Your task to perform on an android device: add a label to a message in the gmail app Image 0: 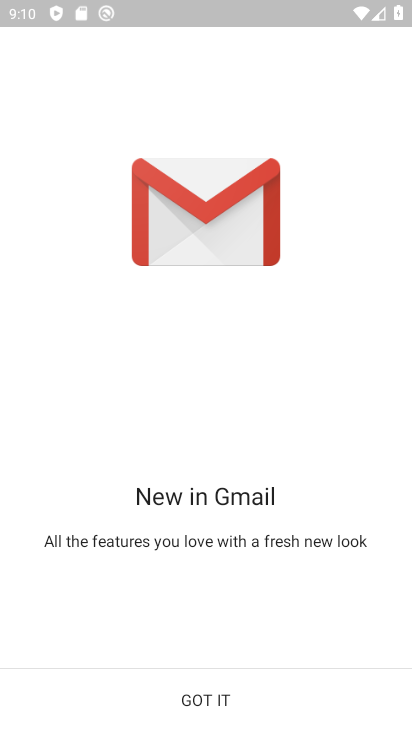
Step 0: press home button
Your task to perform on an android device: add a label to a message in the gmail app Image 1: 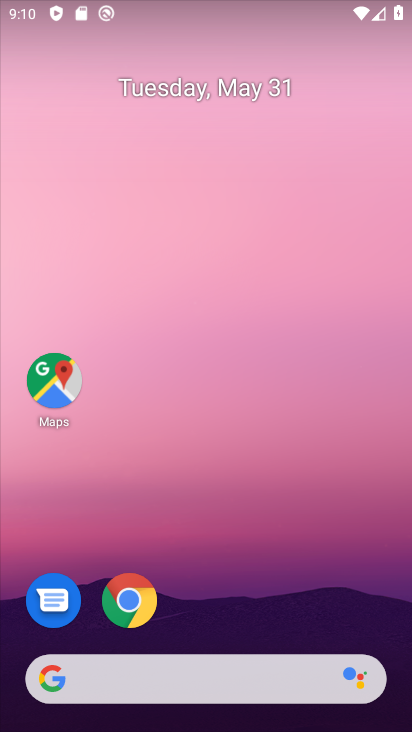
Step 1: drag from (193, 609) to (204, 159)
Your task to perform on an android device: add a label to a message in the gmail app Image 2: 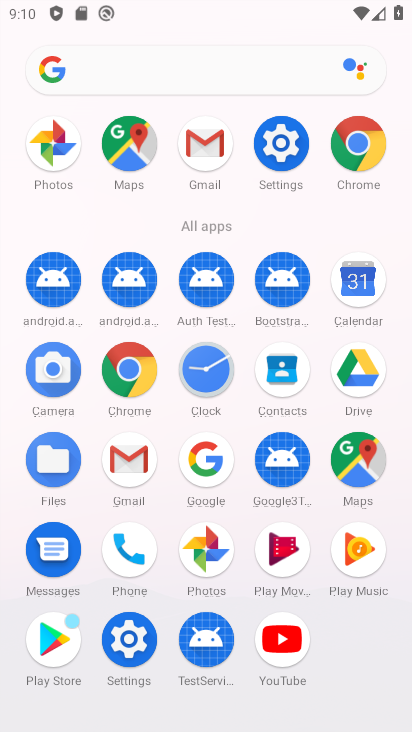
Step 2: click (209, 167)
Your task to perform on an android device: add a label to a message in the gmail app Image 3: 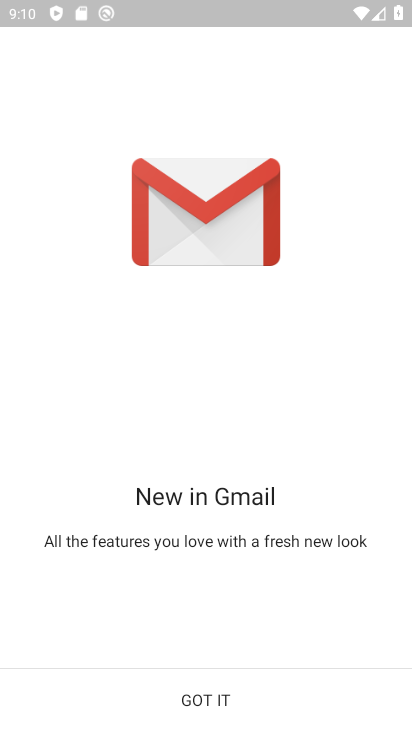
Step 3: click (205, 693)
Your task to perform on an android device: add a label to a message in the gmail app Image 4: 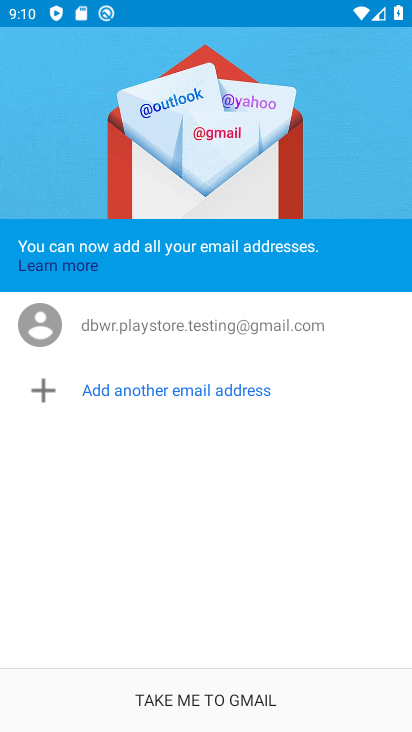
Step 4: click (203, 699)
Your task to perform on an android device: add a label to a message in the gmail app Image 5: 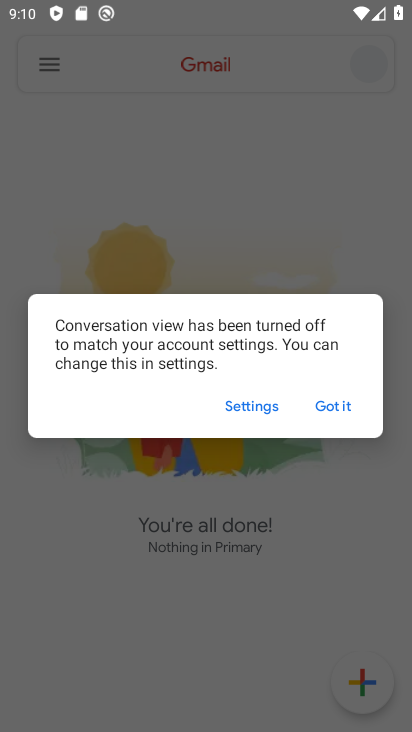
Step 5: click (339, 393)
Your task to perform on an android device: add a label to a message in the gmail app Image 6: 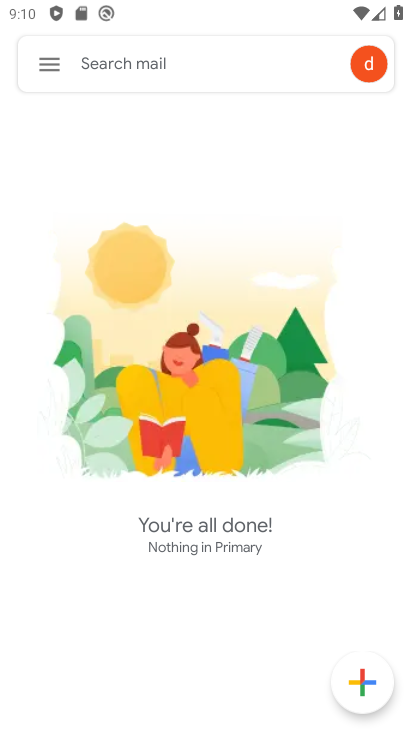
Step 6: click (51, 71)
Your task to perform on an android device: add a label to a message in the gmail app Image 7: 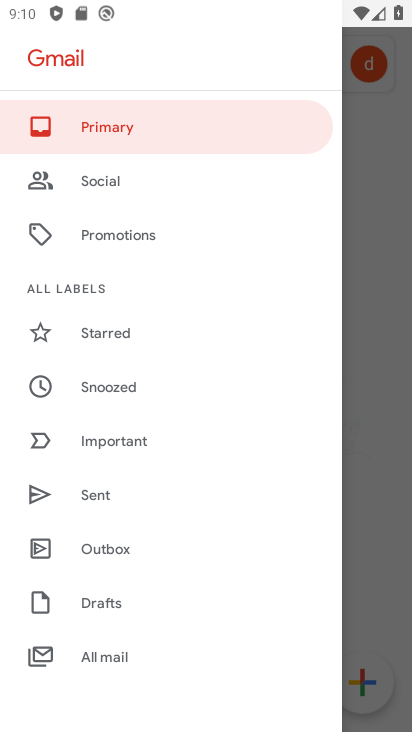
Step 7: drag from (136, 632) to (119, 210)
Your task to perform on an android device: add a label to a message in the gmail app Image 8: 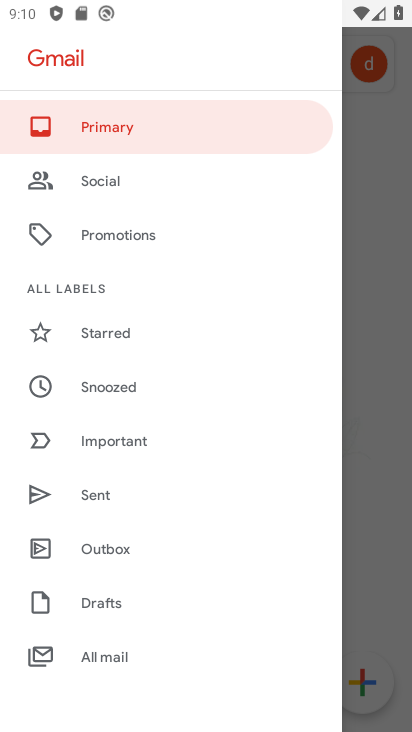
Step 8: drag from (111, 592) to (199, 146)
Your task to perform on an android device: add a label to a message in the gmail app Image 9: 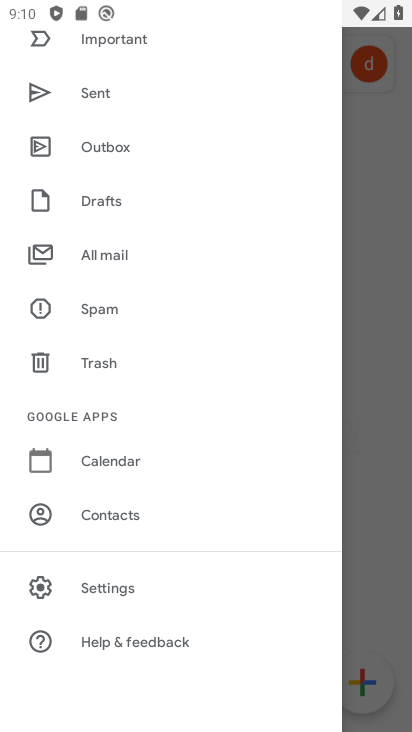
Step 9: click (132, 268)
Your task to perform on an android device: add a label to a message in the gmail app Image 10: 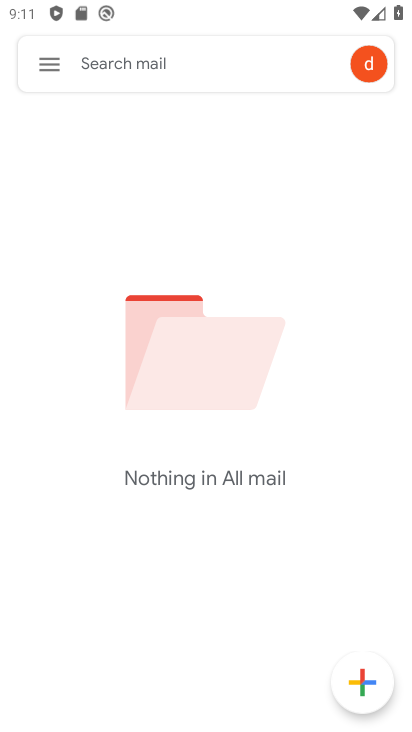
Step 10: task complete